Your task to perform on an android device: turn off data saver in the chrome app Image 0: 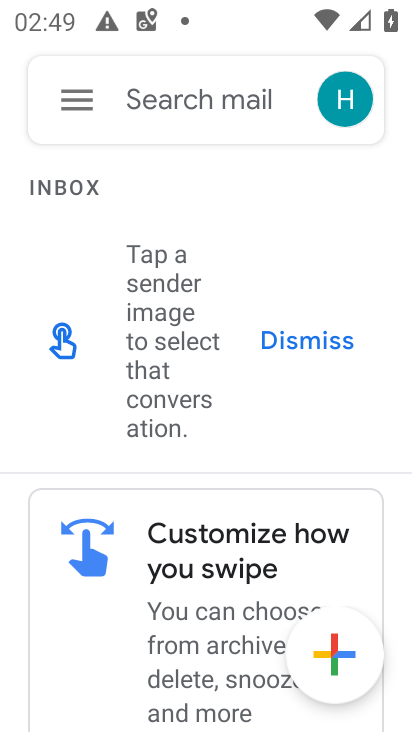
Step 0: task complete